Your task to perform on an android device: Search for vegetarian restaurants on Maps Image 0: 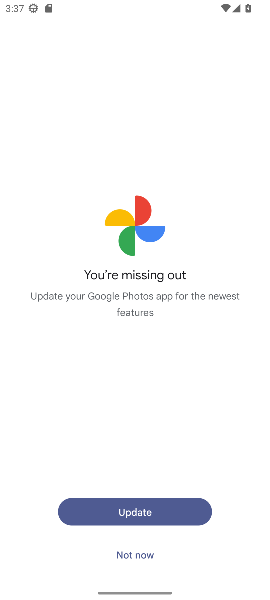
Step 0: press back button
Your task to perform on an android device: Search for vegetarian restaurants on Maps Image 1: 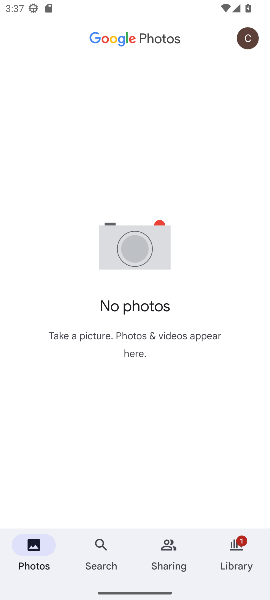
Step 1: press home button
Your task to perform on an android device: Search for vegetarian restaurants on Maps Image 2: 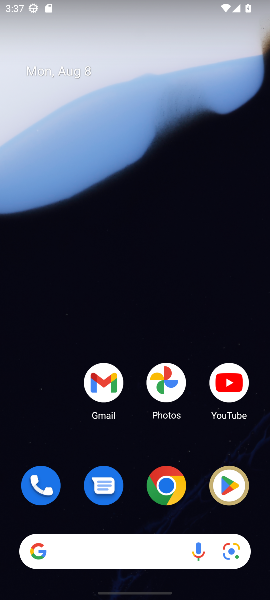
Step 2: press back button
Your task to perform on an android device: Search for vegetarian restaurants on Maps Image 3: 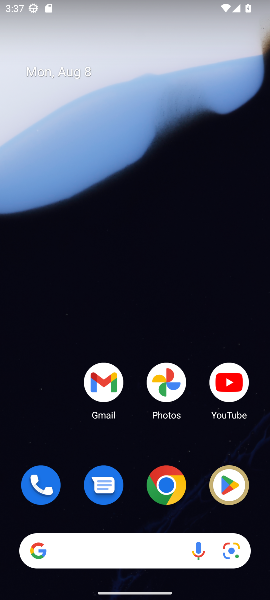
Step 3: drag from (173, 505) to (133, 21)
Your task to perform on an android device: Search for vegetarian restaurants on Maps Image 4: 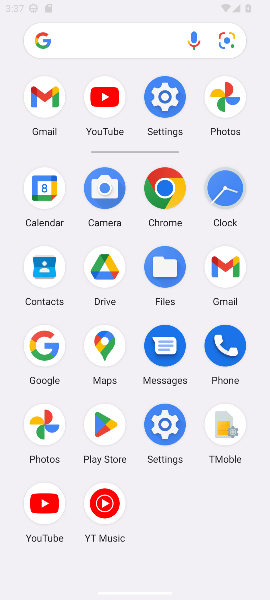
Step 4: drag from (154, 384) to (137, 30)
Your task to perform on an android device: Search for vegetarian restaurants on Maps Image 5: 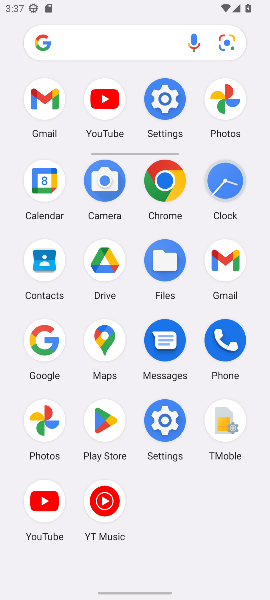
Step 5: drag from (128, 481) to (83, 67)
Your task to perform on an android device: Search for vegetarian restaurants on Maps Image 6: 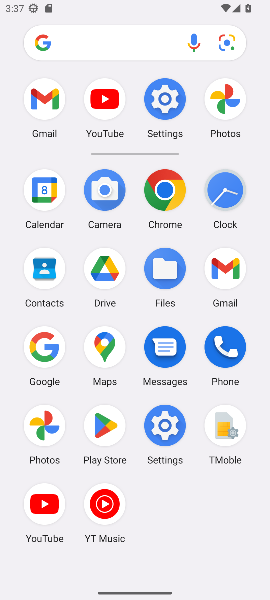
Step 6: click (98, 352)
Your task to perform on an android device: Search for vegetarian restaurants on Maps Image 7: 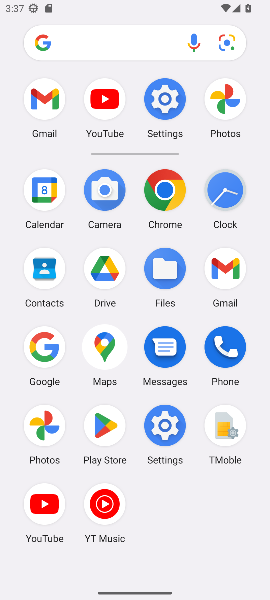
Step 7: click (98, 352)
Your task to perform on an android device: Search for vegetarian restaurants on Maps Image 8: 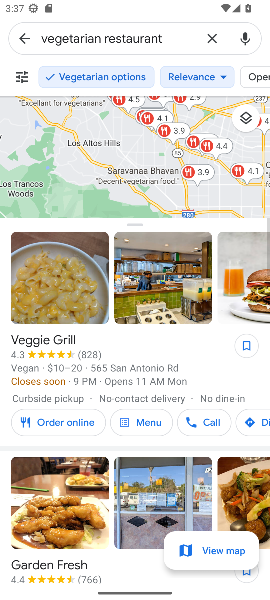
Step 8: click (209, 38)
Your task to perform on an android device: Search for vegetarian restaurants on Maps Image 9: 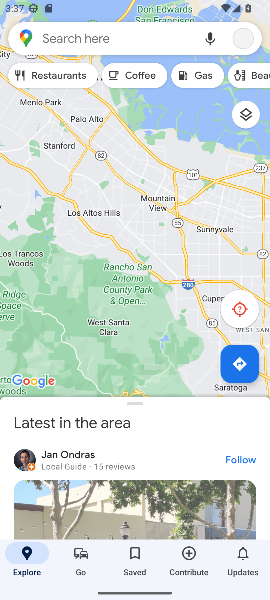
Step 9: click (46, 37)
Your task to perform on an android device: Search for vegetarian restaurants on Maps Image 10: 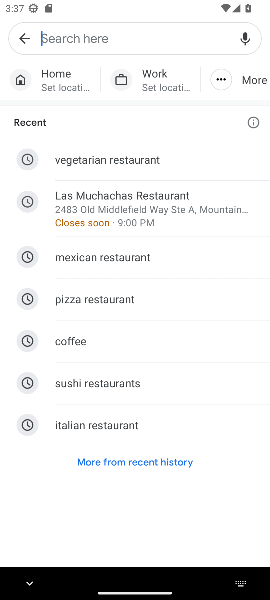
Step 10: click (112, 178)
Your task to perform on an android device: Search for vegetarian restaurants on Maps Image 11: 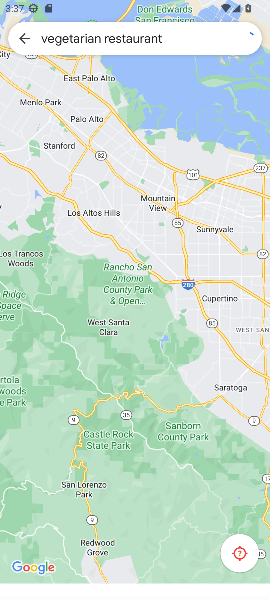
Step 11: click (112, 157)
Your task to perform on an android device: Search for vegetarian restaurants on Maps Image 12: 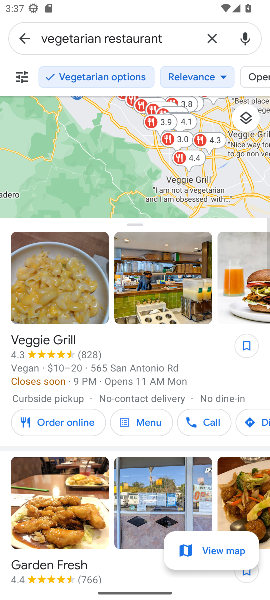
Step 12: task complete